Your task to perform on an android device: create a new album in the google photos Image 0: 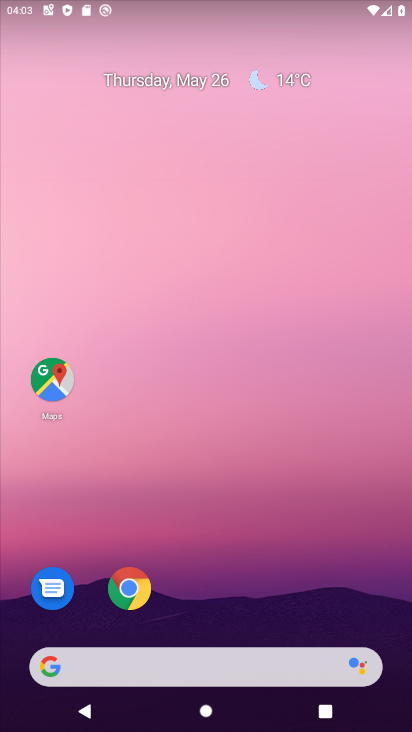
Step 0: drag from (333, 570) to (274, 47)
Your task to perform on an android device: create a new album in the google photos Image 1: 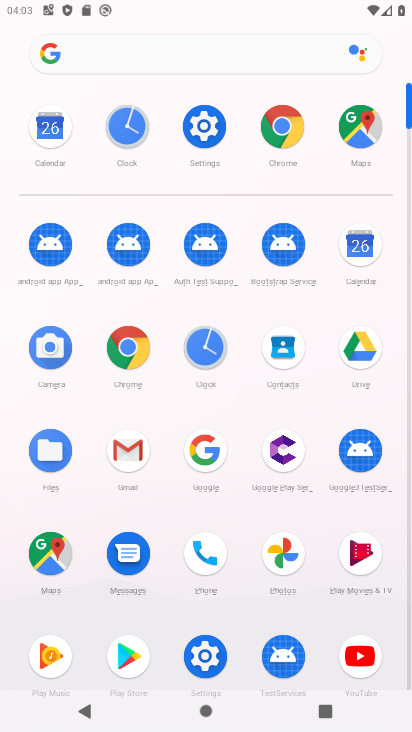
Step 1: click (289, 576)
Your task to perform on an android device: create a new album in the google photos Image 2: 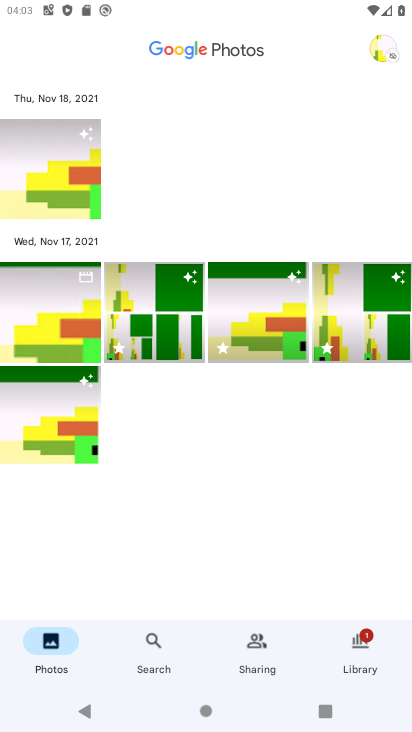
Step 2: click (356, 642)
Your task to perform on an android device: create a new album in the google photos Image 3: 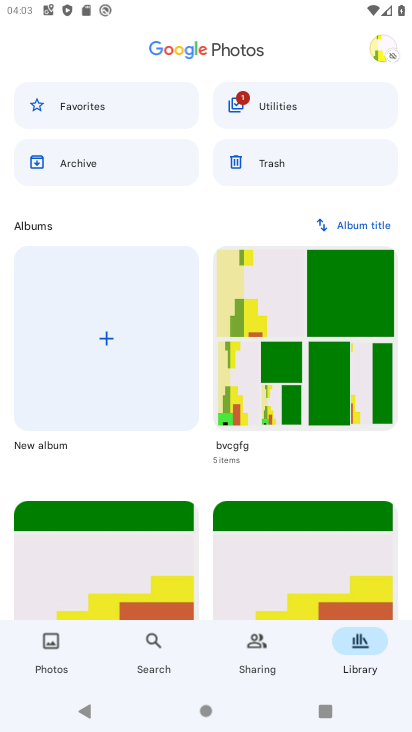
Step 3: click (88, 386)
Your task to perform on an android device: create a new album in the google photos Image 4: 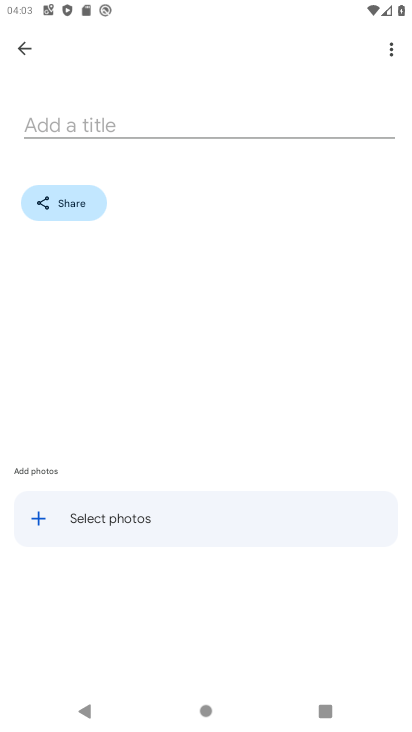
Step 4: click (93, 114)
Your task to perform on an android device: create a new album in the google photos Image 5: 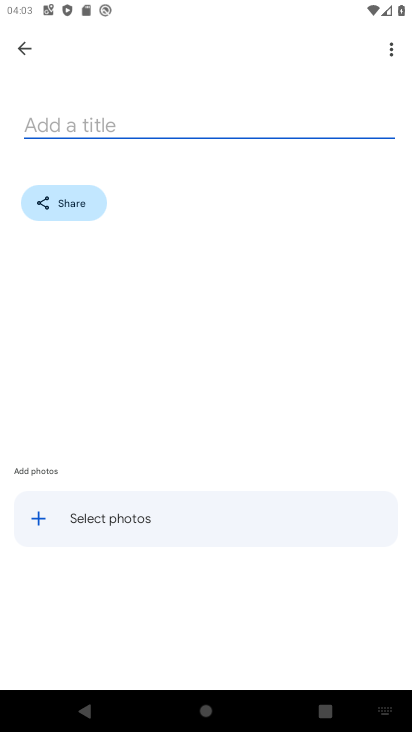
Step 5: type "dcsd"
Your task to perform on an android device: create a new album in the google photos Image 6: 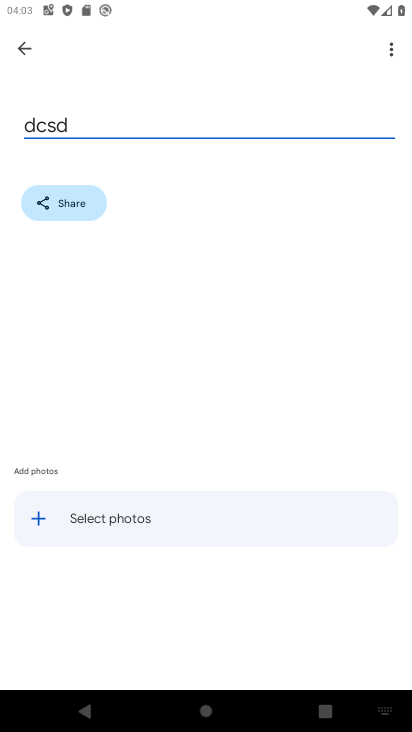
Step 6: click (51, 510)
Your task to perform on an android device: create a new album in the google photos Image 7: 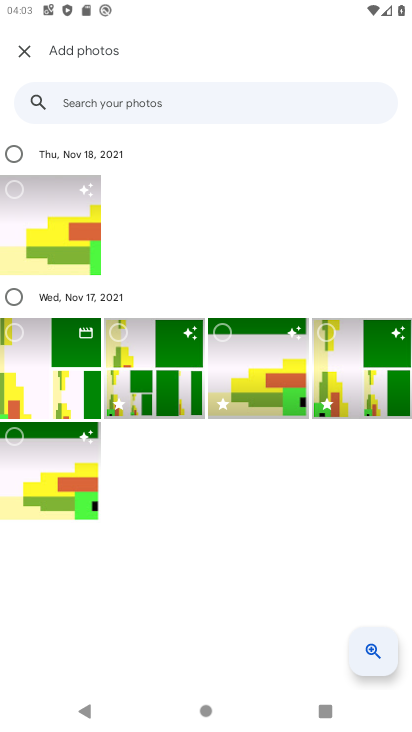
Step 7: click (90, 161)
Your task to perform on an android device: create a new album in the google photos Image 8: 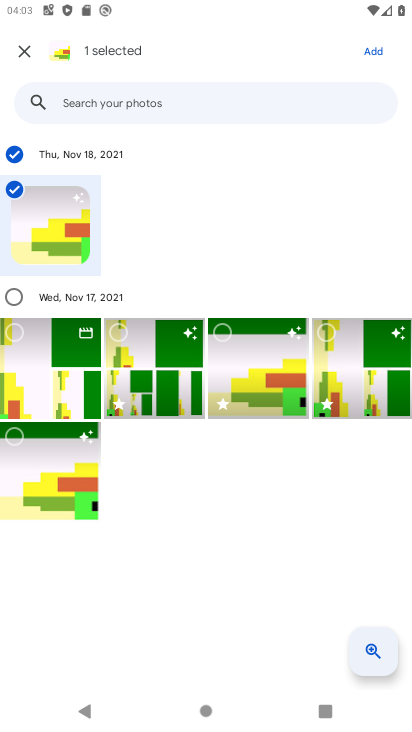
Step 8: click (66, 306)
Your task to perform on an android device: create a new album in the google photos Image 9: 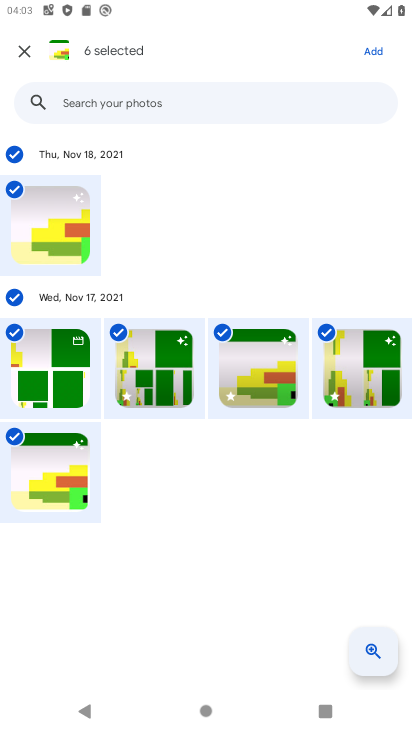
Step 9: click (373, 47)
Your task to perform on an android device: create a new album in the google photos Image 10: 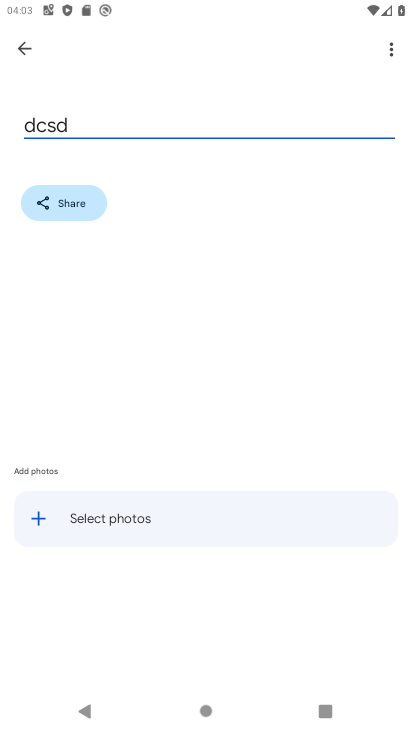
Step 10: task complete